Your task to perform on an android device: toggle data saver in the chrome app Image 0: 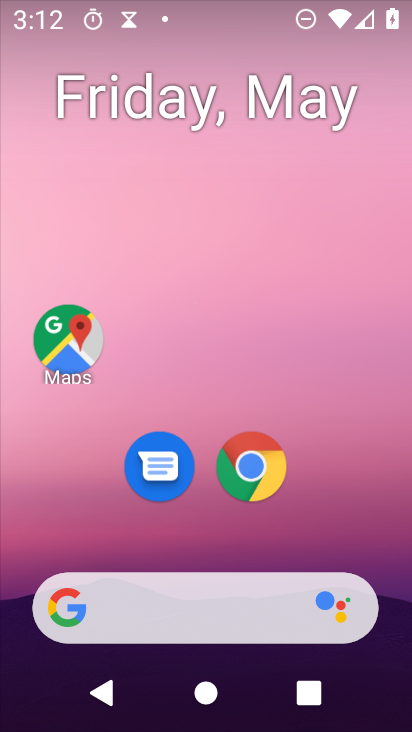
Step 0: drag from (333, 545) to (348, 50)
Your task to perform on an android device: toggle data saver in the chrome app Image 1: 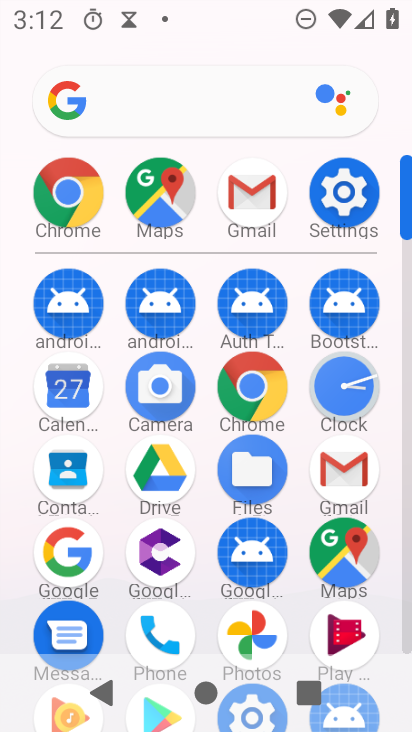
Step 1: click (55, 220)
Your task to perform on an android device: toggle data saver in the chrome app Image 2: 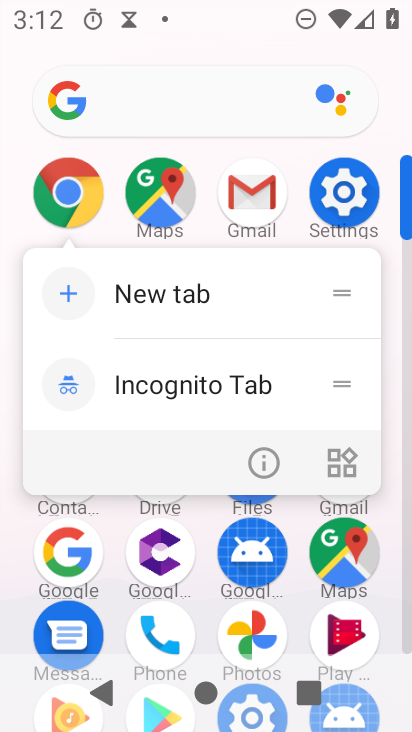
Step 2: click (64, 204)
Your task to perform on an android device: toggle data saver in the chrome app Image 3: 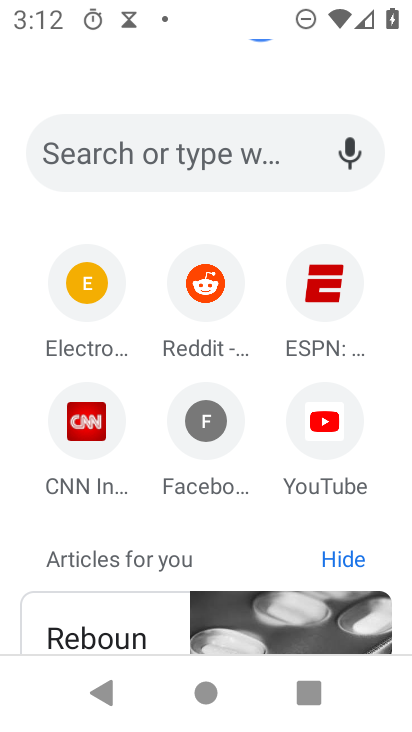
Step 3: drag from (66, 615) to (118, 74)
Your task to perform on an android device: toggle data saver in the chrome app Image 4: 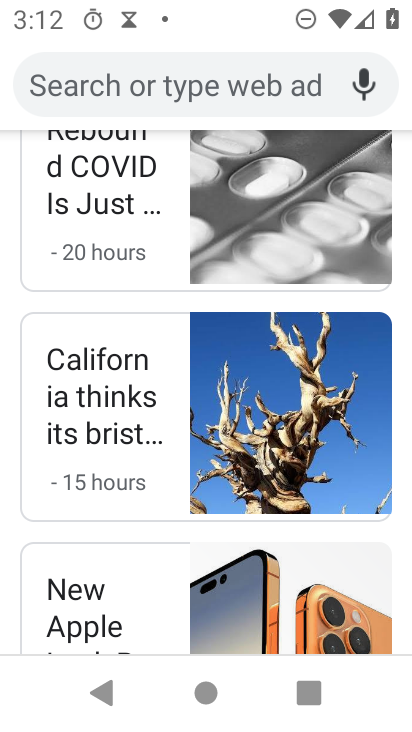
Step 4: drag from (124, 315) to (197, 616)
Your task to perform on an android device: toggle data saver in the chrome app Image 5: 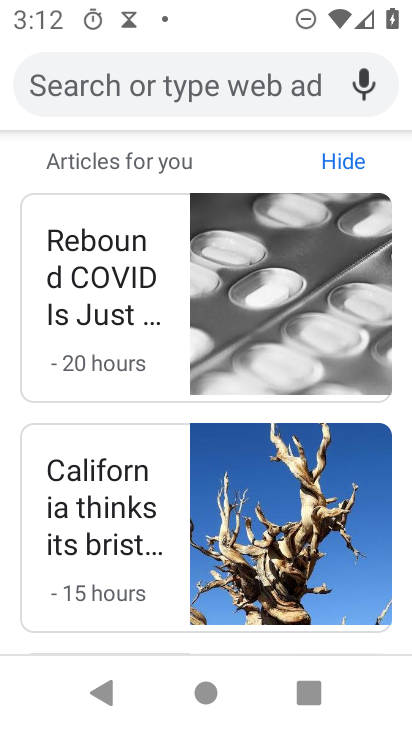
Step 5: drag from (118, 212) to (186, 593)
Your task to perform on an android device: toggle data saver in the chrome app Image 6: 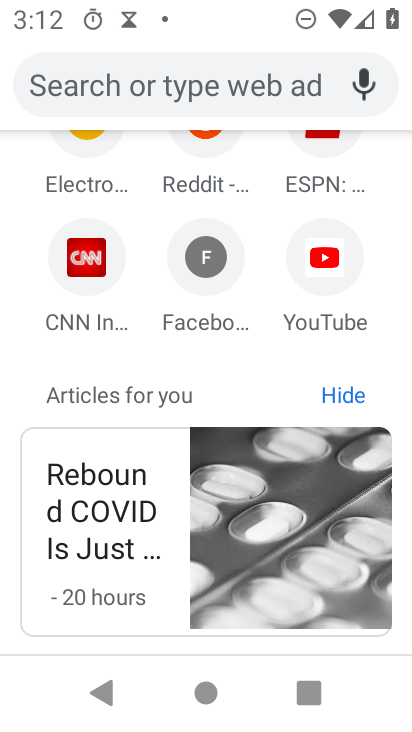
Step 6: drag from (156, 188) to (194, 654)
Your task to perform on an android device: toggle data saver in the chrome app Image 7: 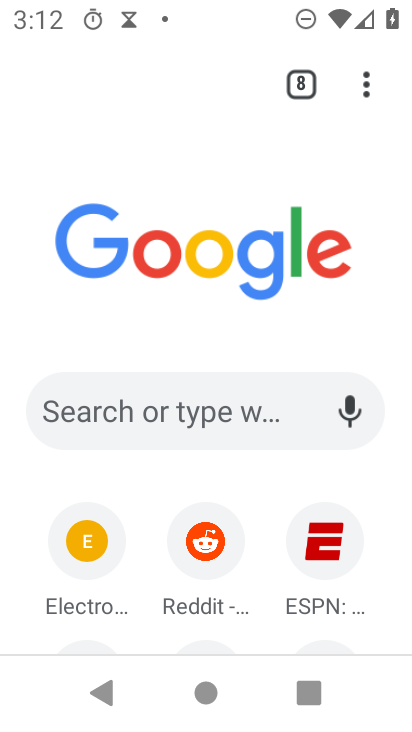
Step 7: drag from (351, 100) to (124, 526)
Your task to perform on an android device: toggle data saver in the chrome app Image 8: 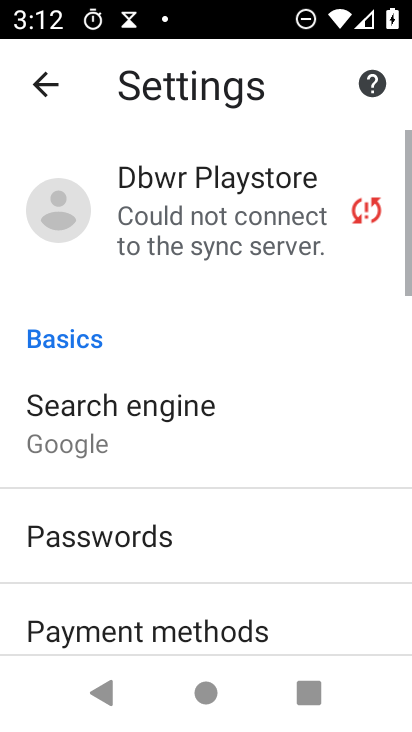
Step 8: drag from (183, 567) to (198, 110)
Your task to perform on an android device: toggle data saver in the chrome app Image 9: 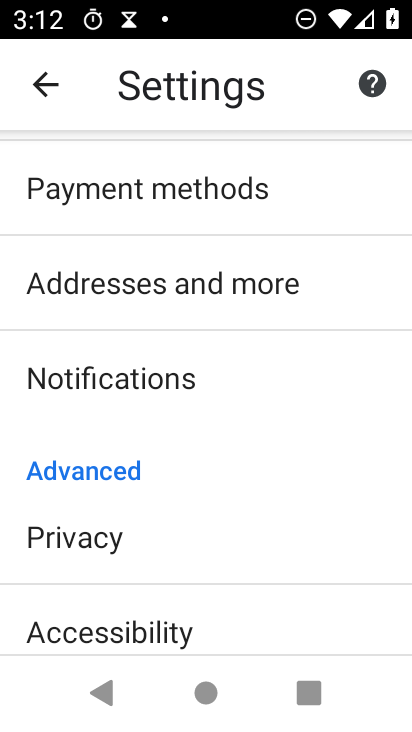
Step 9: drag from (184, 515) to (185, 170)
Your task to perform on an android device: toggle data saver in the chrome app Image 10: 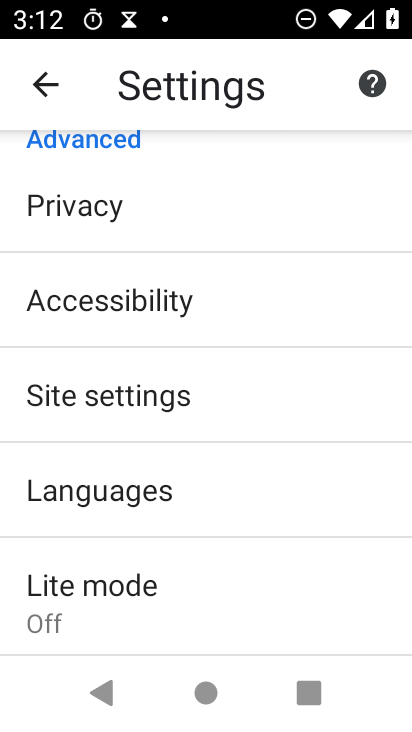
Step 10: click (174, 481)
Your task to perform on an android device: toggle data saver in the chrome app Image 11: 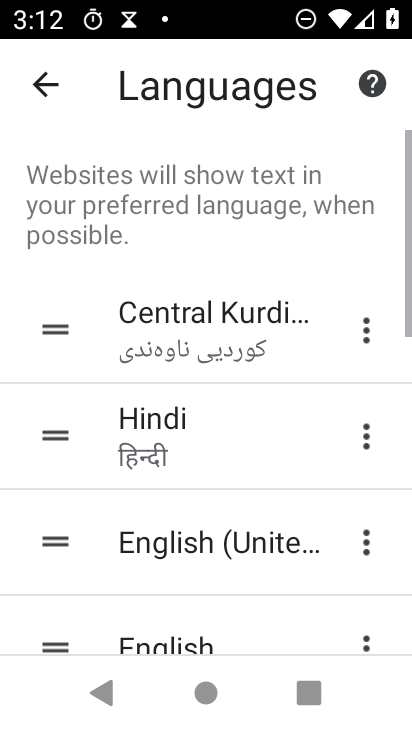
Step 11: click (208, 187)
Your task to perform on an android device: toggle data saver in the chrome app Image 12: 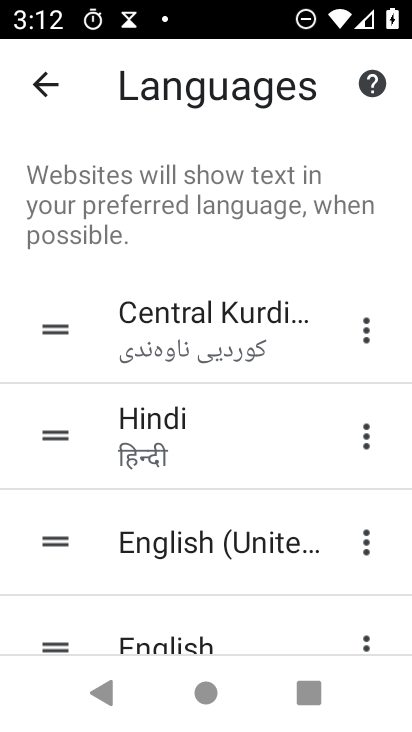
Step 12: drag from (230, 566) to (249, 276)
Your task to perform on an android device: toggle data saver in the chrome app Image 13: 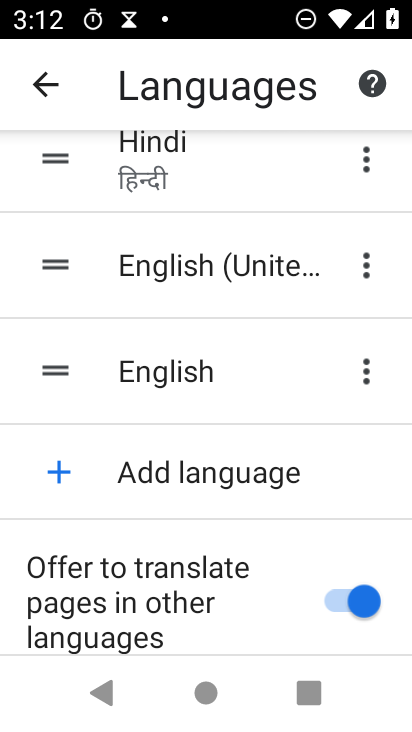
Step 13: drag from (215, 585) to (238, 240)
Your task to perform on an android device: toggle data saver in the chrome app Image 14: 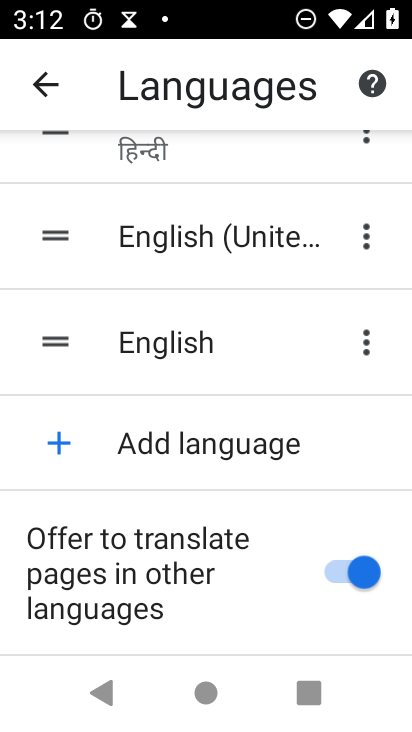
Step 14: click (347, 573)
Your task to perform on an android device: toggle data saver in the chrome app Image 15: 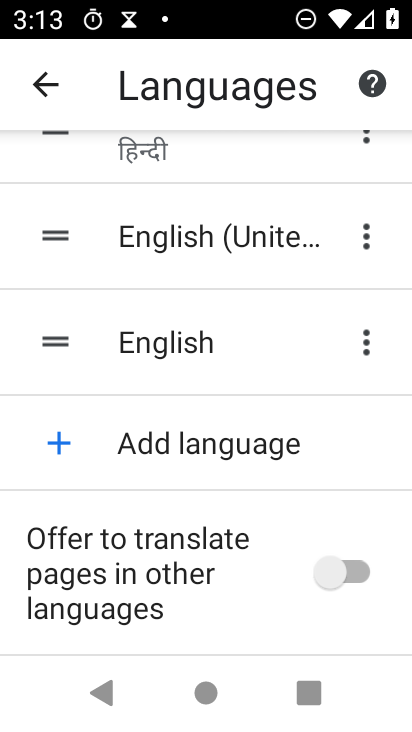
Step 15: task complete